Your task to perform on an android device: Clear the shopping cart on bestbuy.com. Add "razer nari" to the cart on bestbuy.com Image 0: 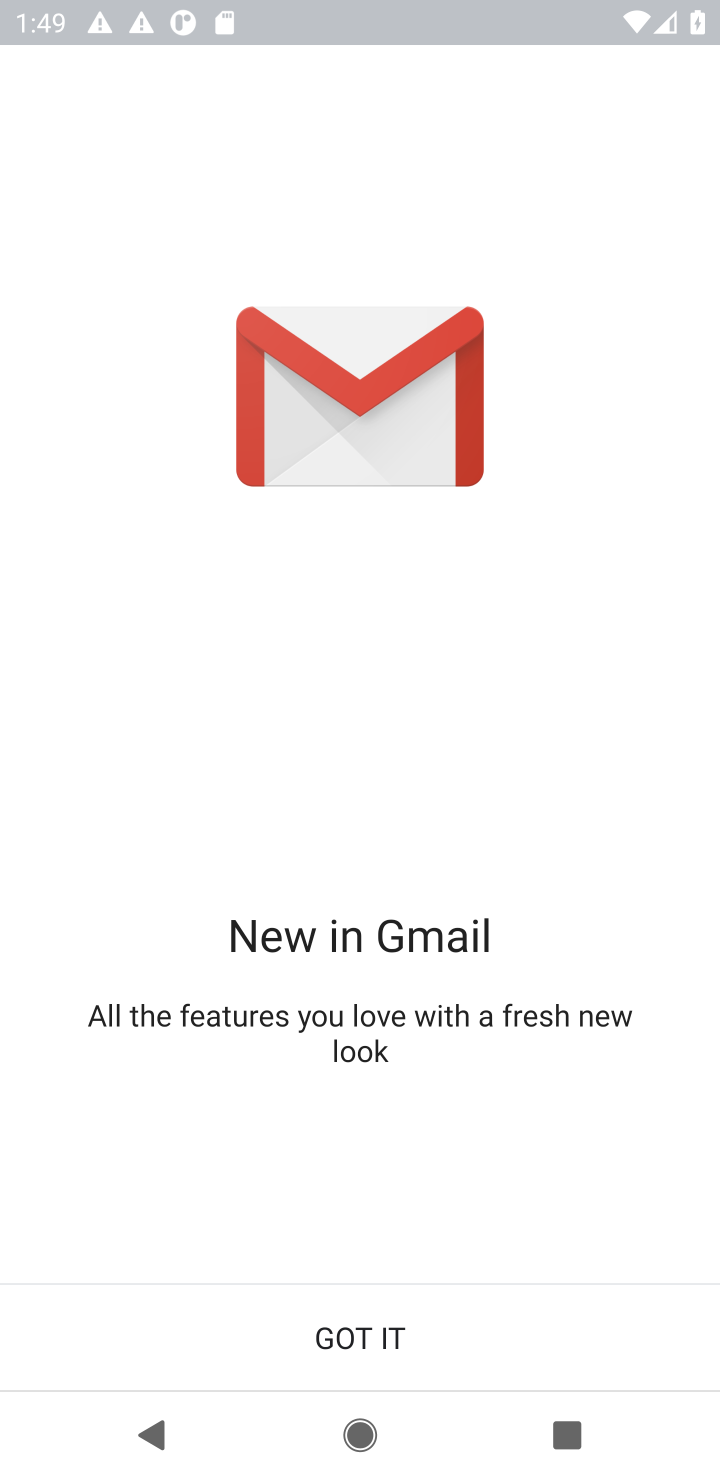
Step 0: press home button
Your task to perform on an android device: Clear the shopping cart on bestbuy.com. Add "razer nari" to the cart on bestbuy.com Image 1: 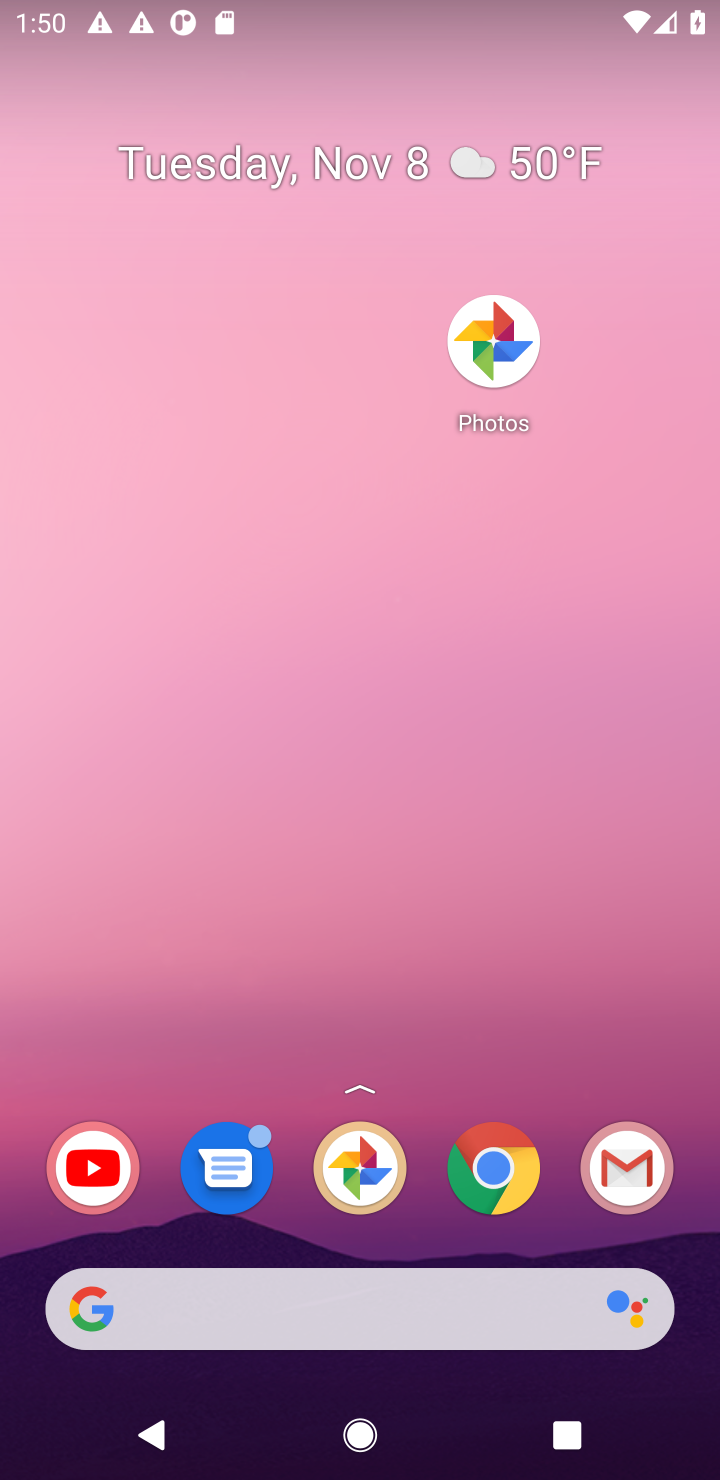
Step 1: drag from (310, 1122) to (487, 0)
Your task to perform on an android device: Clear the shopping cart on bestbuy.com. Add "razer nari" to the cart on bestbuy.com Image 2: 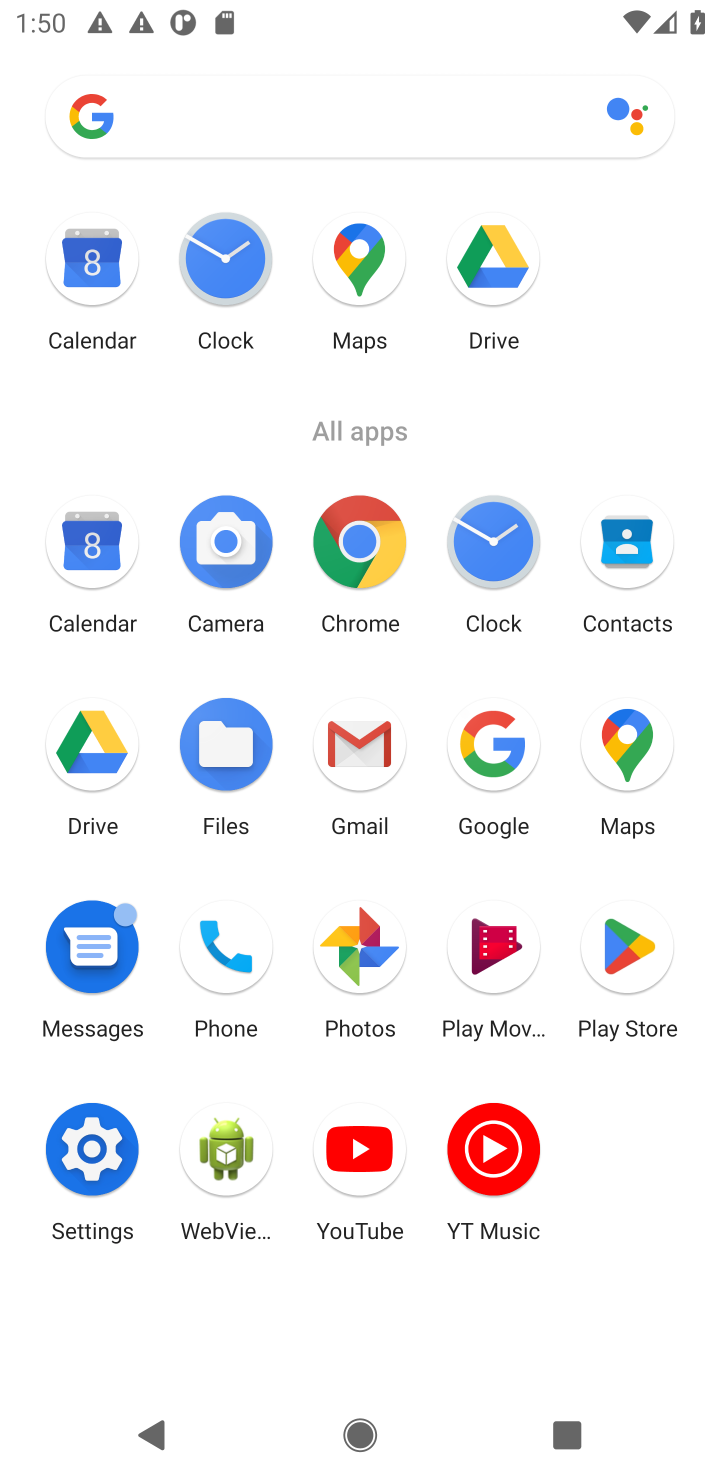
Step 2: click (361, 527)
Your task to perform on an android device: Clear the shopping cart on bestbuy.com. Add "razer nari" to the cart on bestbuy.com Image 3: 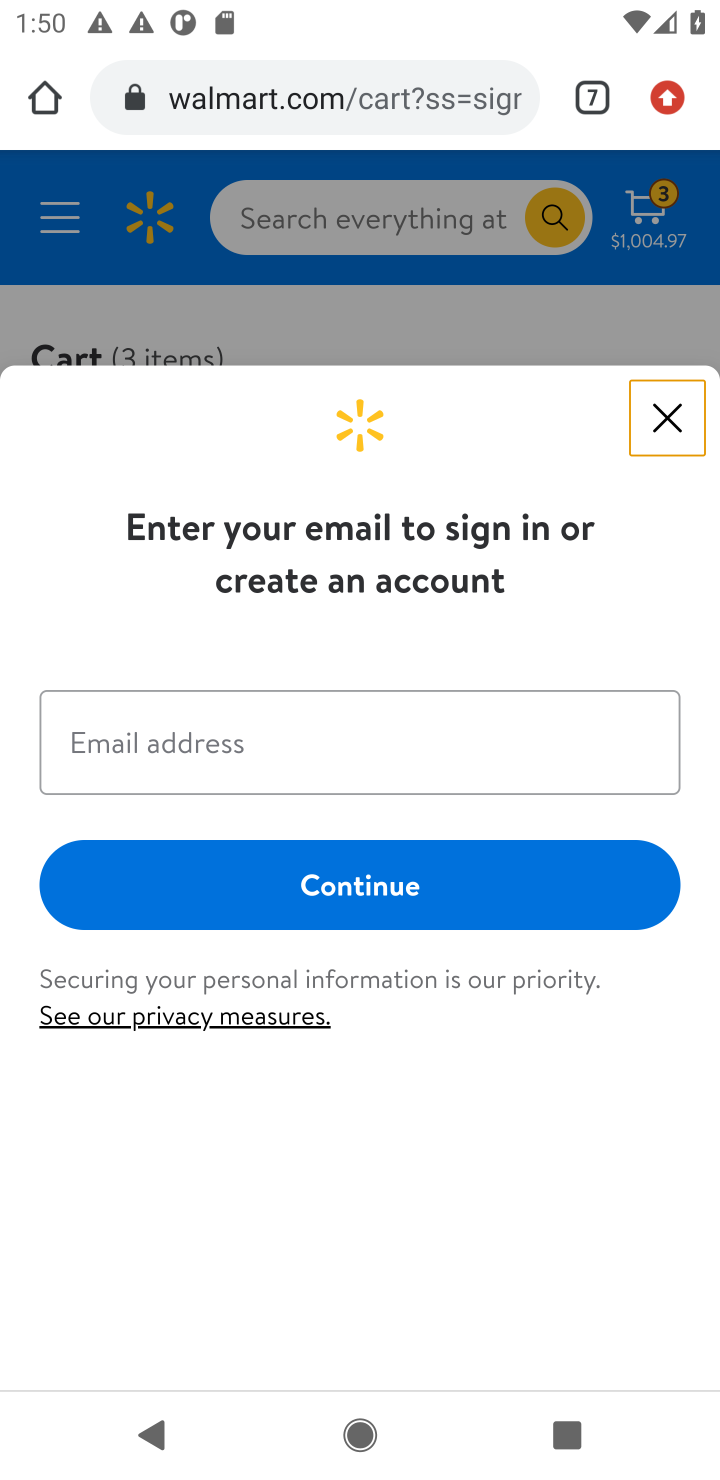
Step 3: click (371, 109)
Your task to perform on an android device: Clear the shopping cart on bestbuy.com. Add "razer nari" to the cart on bestbuy.com Image 4: 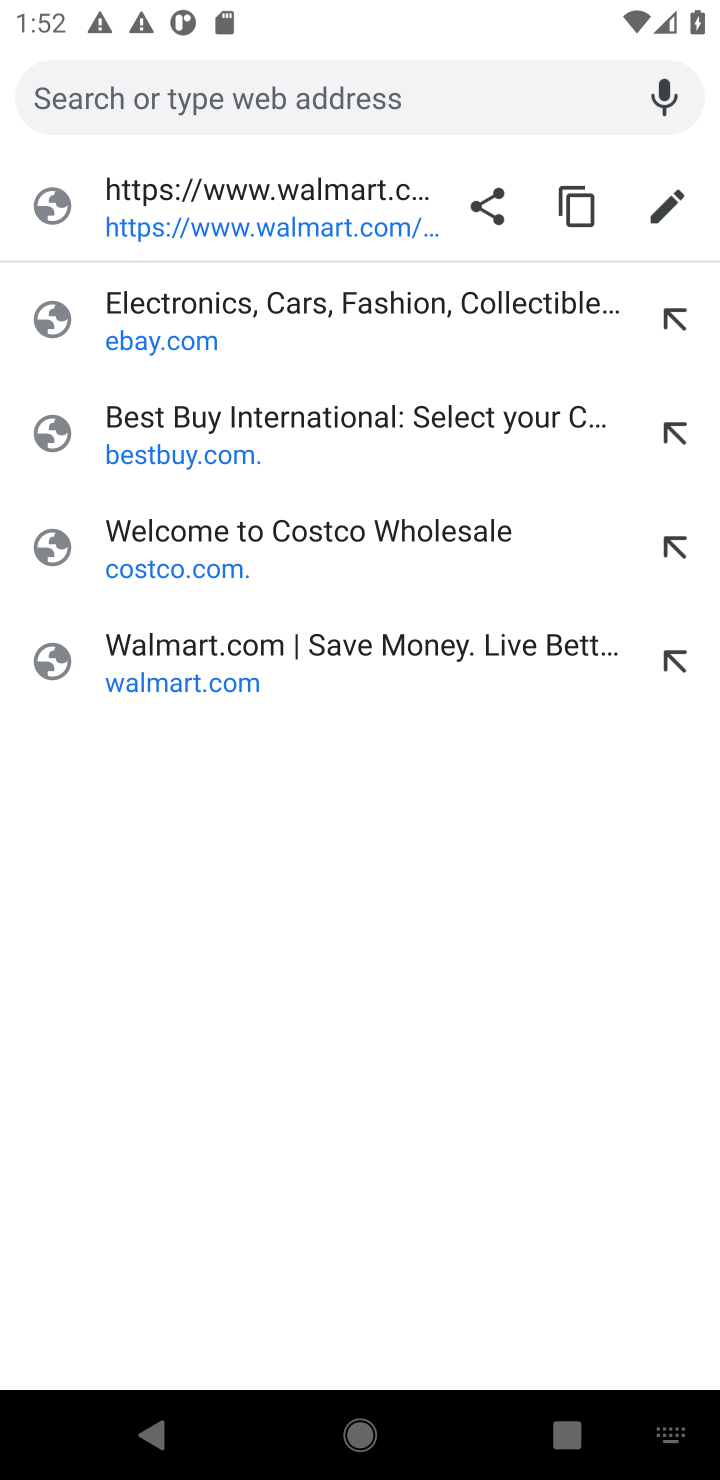
Step 4: press enter
Your task to perform on an android device: Clear the shopping cart on bestbuy.com. Add "razer nari" to the cart on bestbuy.com Image 5: 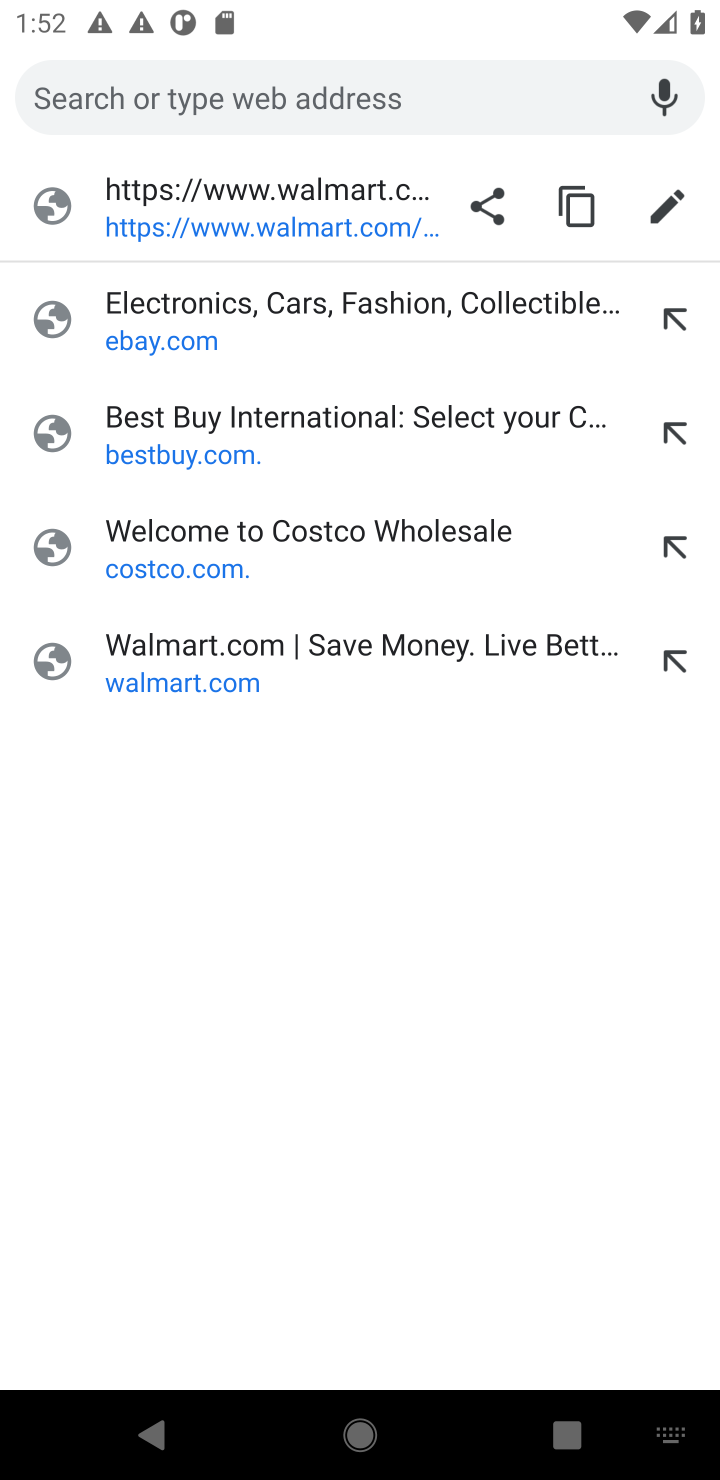
Step 5: type "bestbuy"
Your task to perform on an android device: Clear the shopping cart on bestbuy.com. Add "razer nari" to the cart on bestbuy.com Image 6: 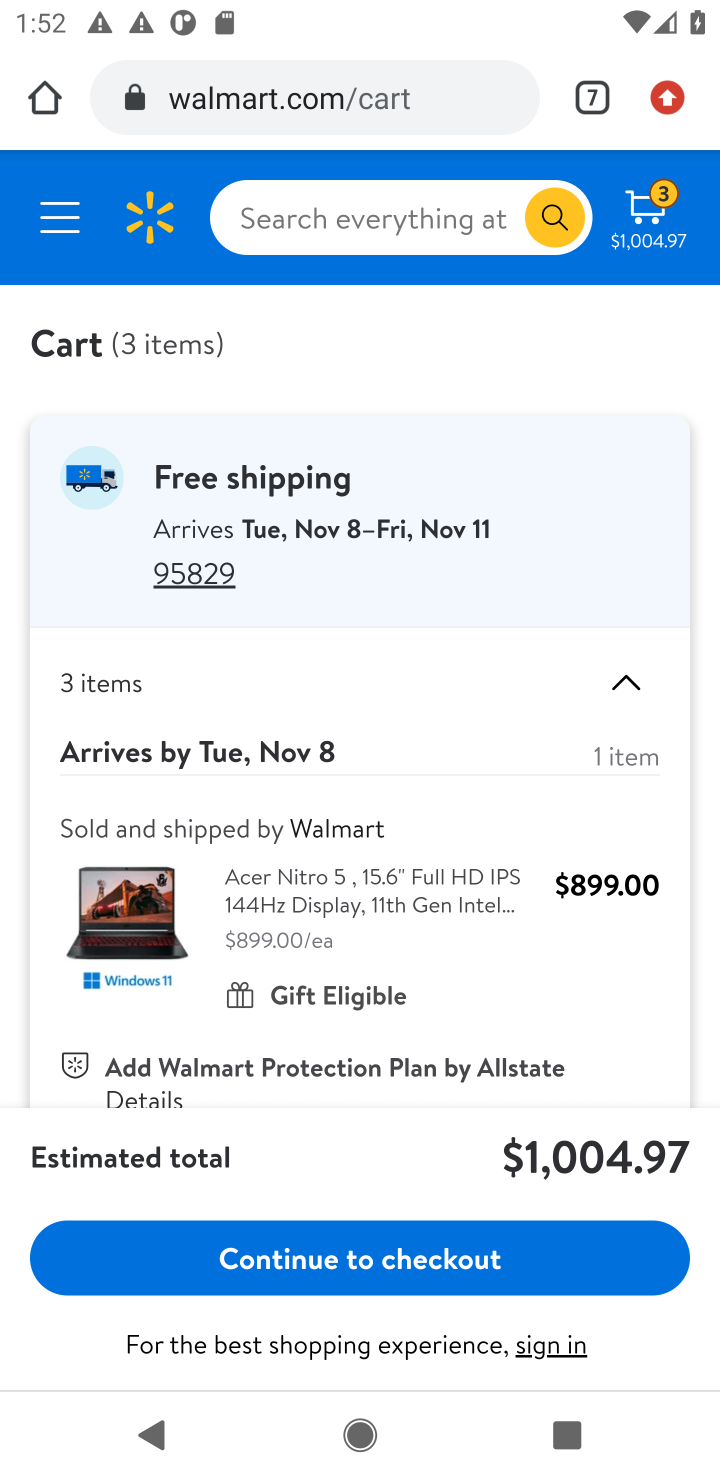
Step 6: click (391, 236)
Your task to perform on an android device: Clear the shopping cart on bestbuy.com. Add "razer nari" to the cart on bestbuy.com Image 7: 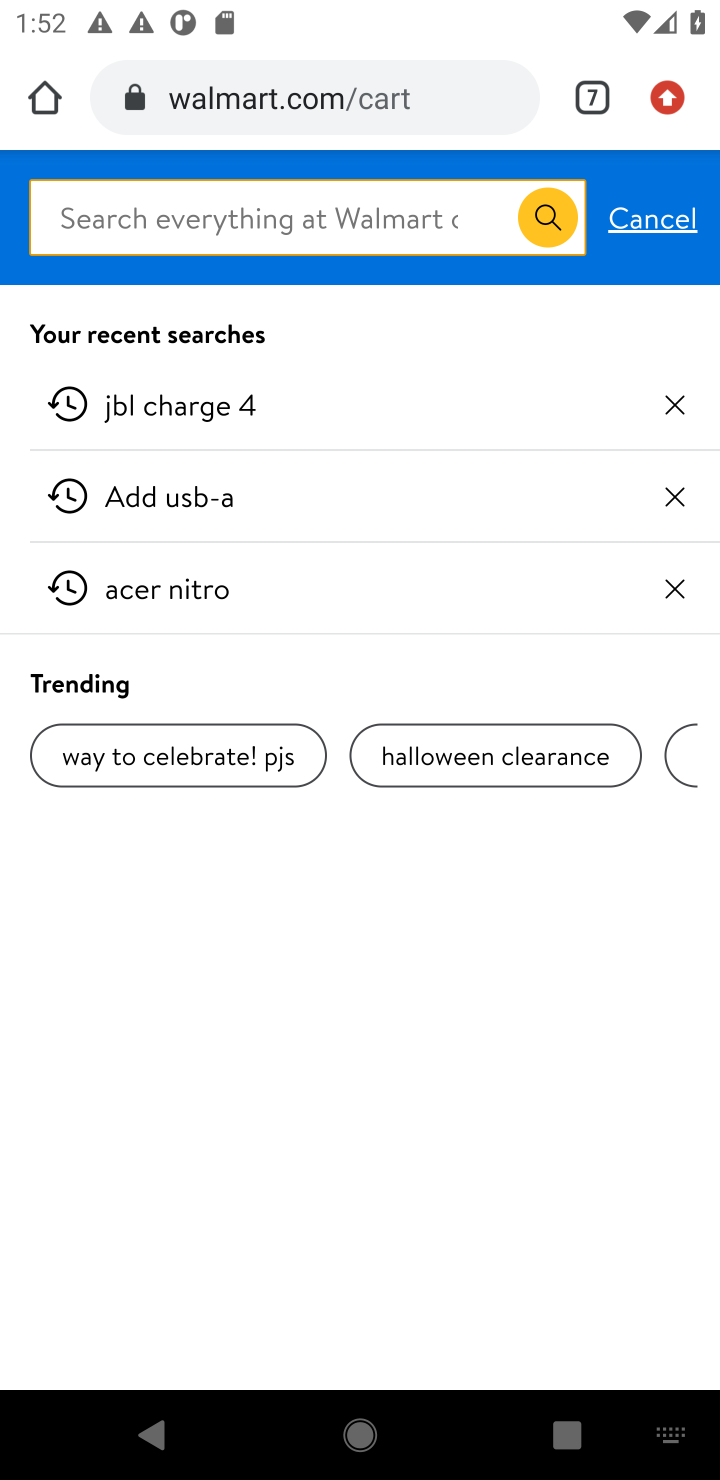
Step 7: drag from (541, 1472) to (632, 1041)
Your task to perform on an android device: Clear the shopping cart on bestbuy.com. Add "razer nari" to the cart on bestbuy.com Image 8: 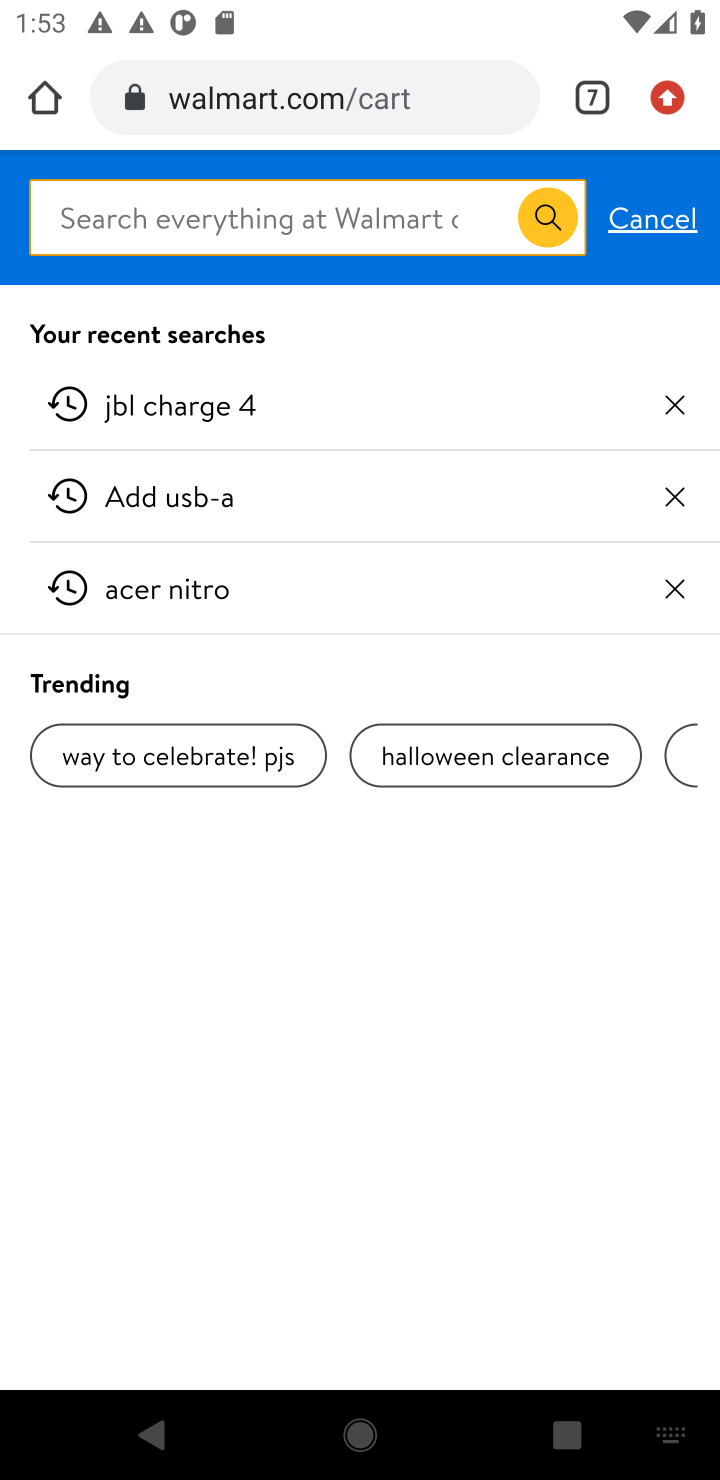
Step 8: type "azer nar"
Your task to perform on an android device: Clear the shopping cart on bestbuy.com. Add "razer nari" to the cart on bestbuy.com Image 9: 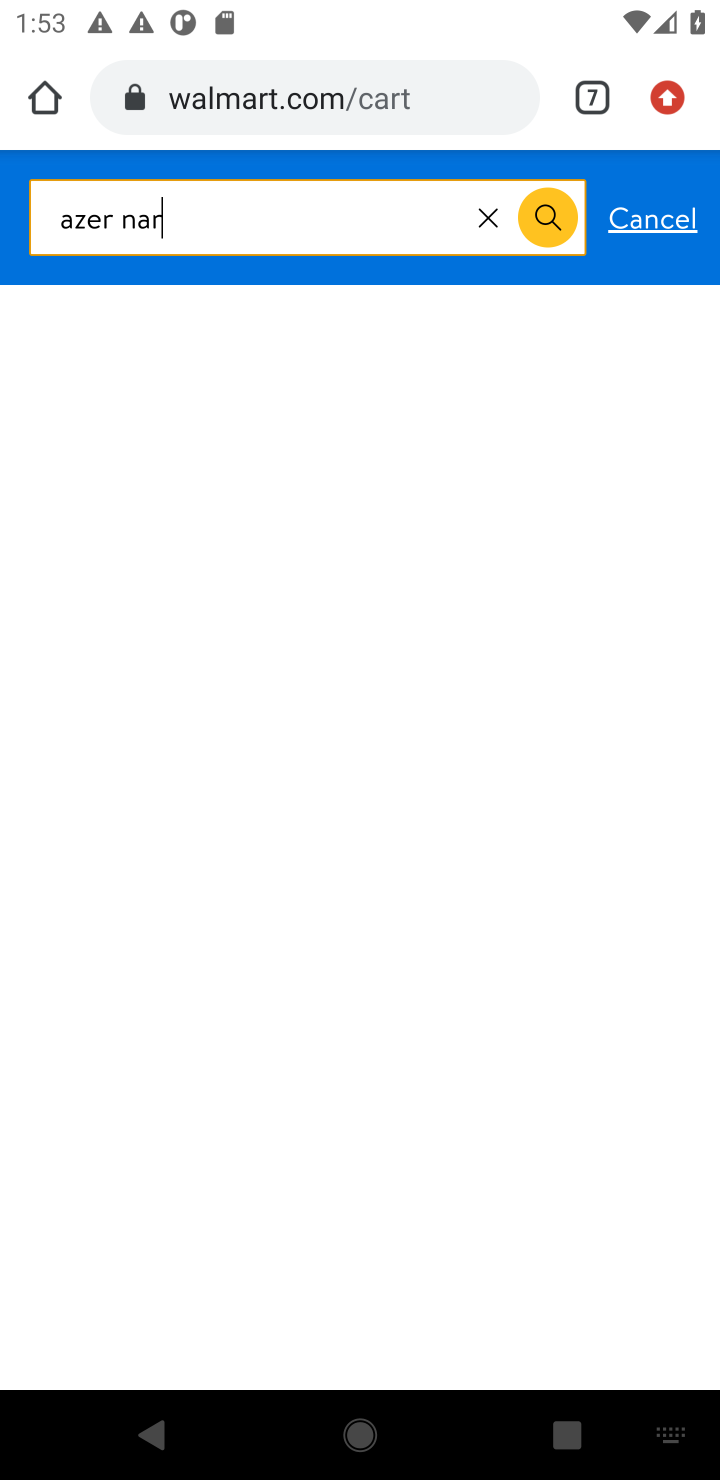
Step 9: press enter
Your task to perform on an android device: Clear the shopping cart on bestbuy.com. Add "razer nari" to the cart on bestbuy.com Image 10: 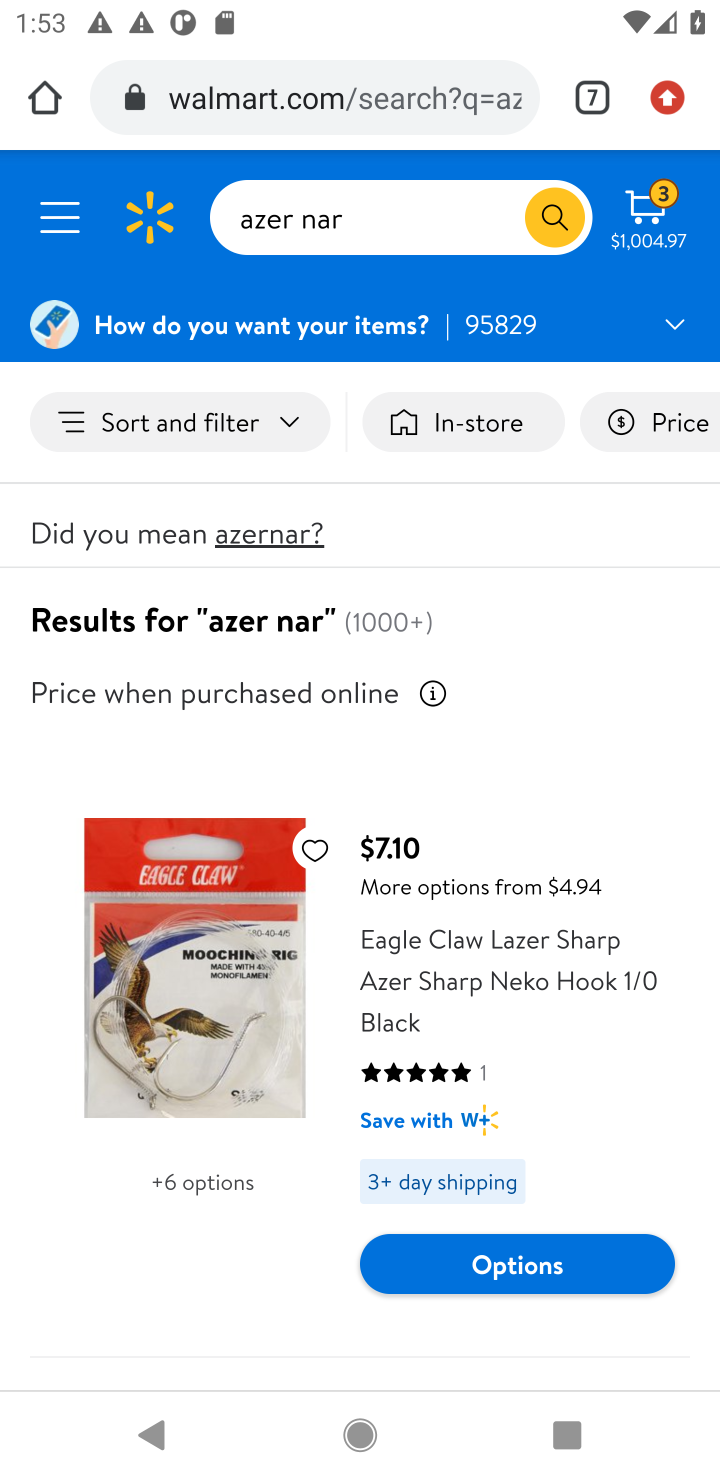
Step 10: click (543, 1261)
Your task to perform on an android device: Clear the shopping cart on bestbuy.com. Add "razer nari" to the cart on bestbuy.com Image 11: 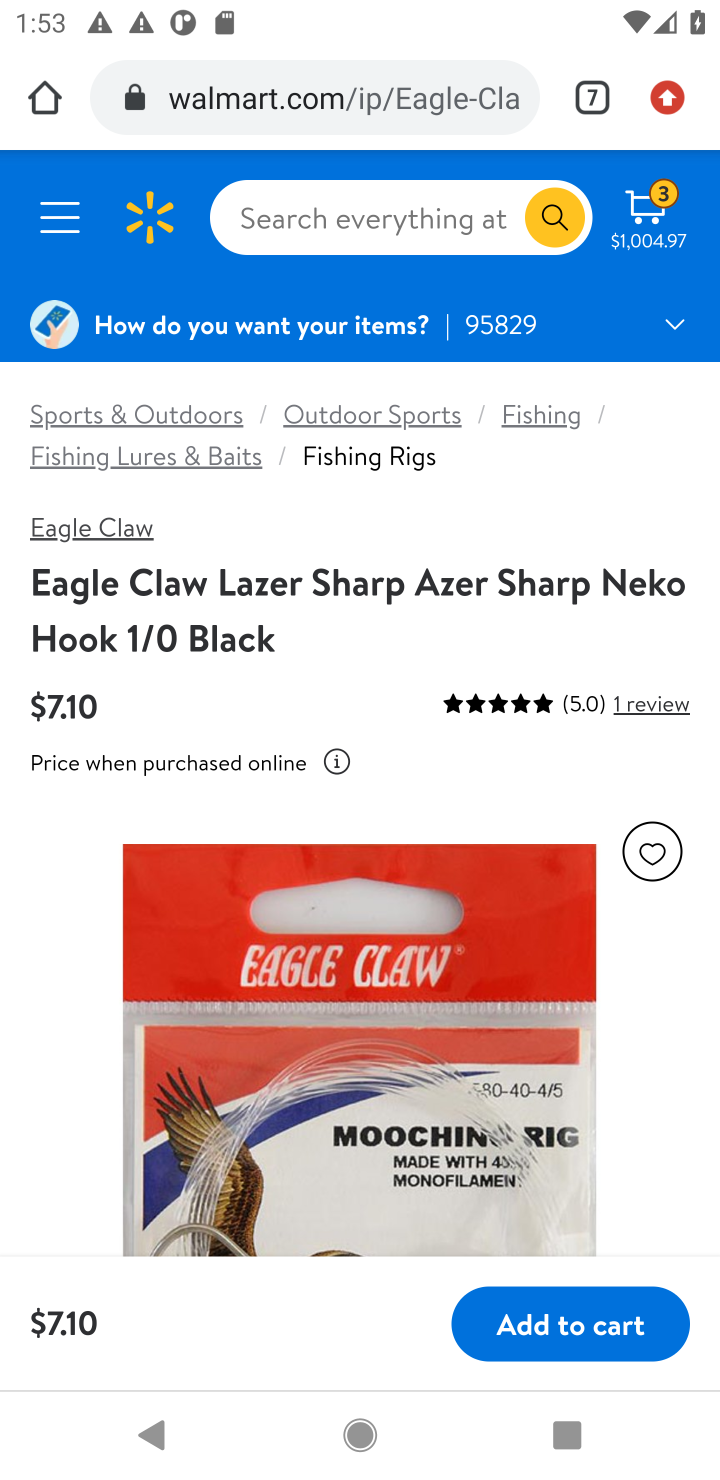
Step 11: click (581, 1324)
Your task to perform on an android device: Clear the shopping cart on bestbuy.com. Add "razer nari" to the cart on bestbuy.com Image 12: 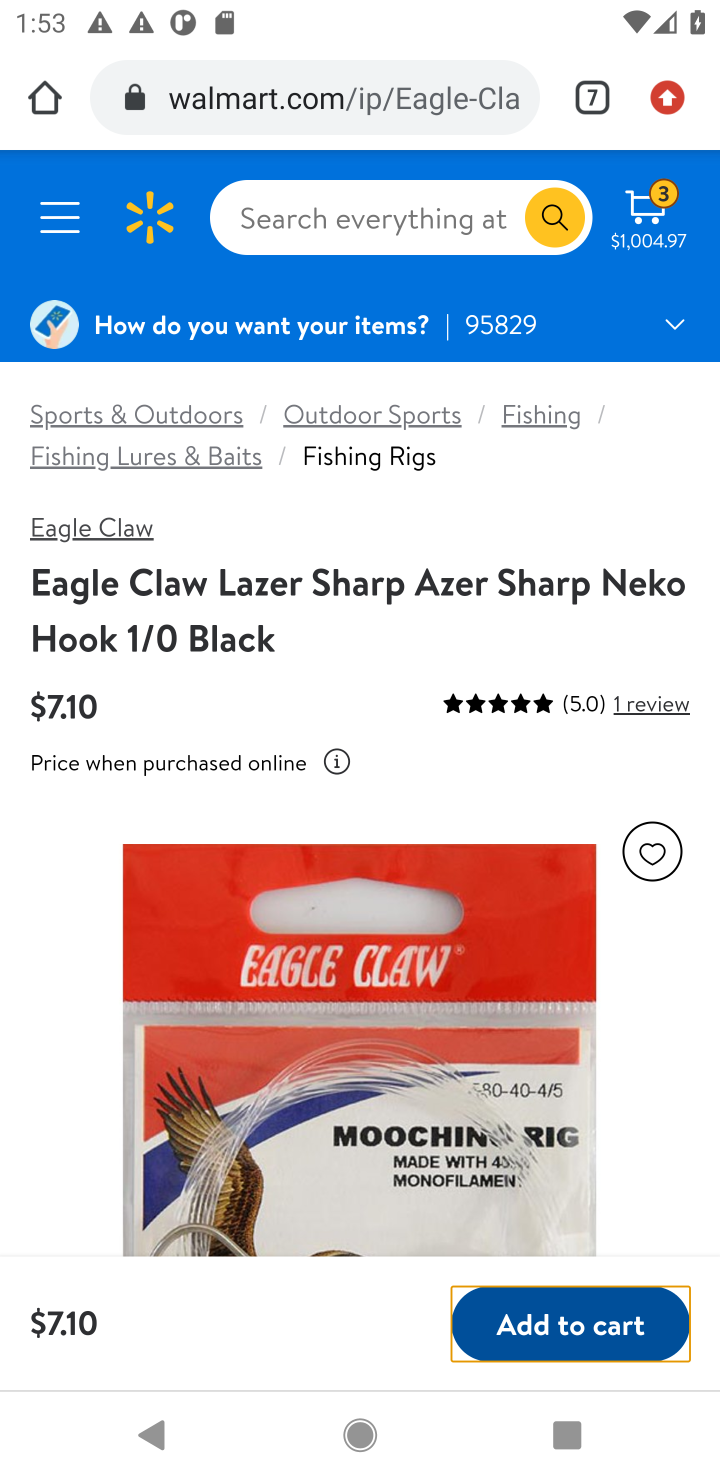
Step 12: click (601, 1329)
Your task to perform on an android device: Clear the shopping cart on bestbuy.com. Add "razer nari" to the cart on bestbuy.com Image 13: 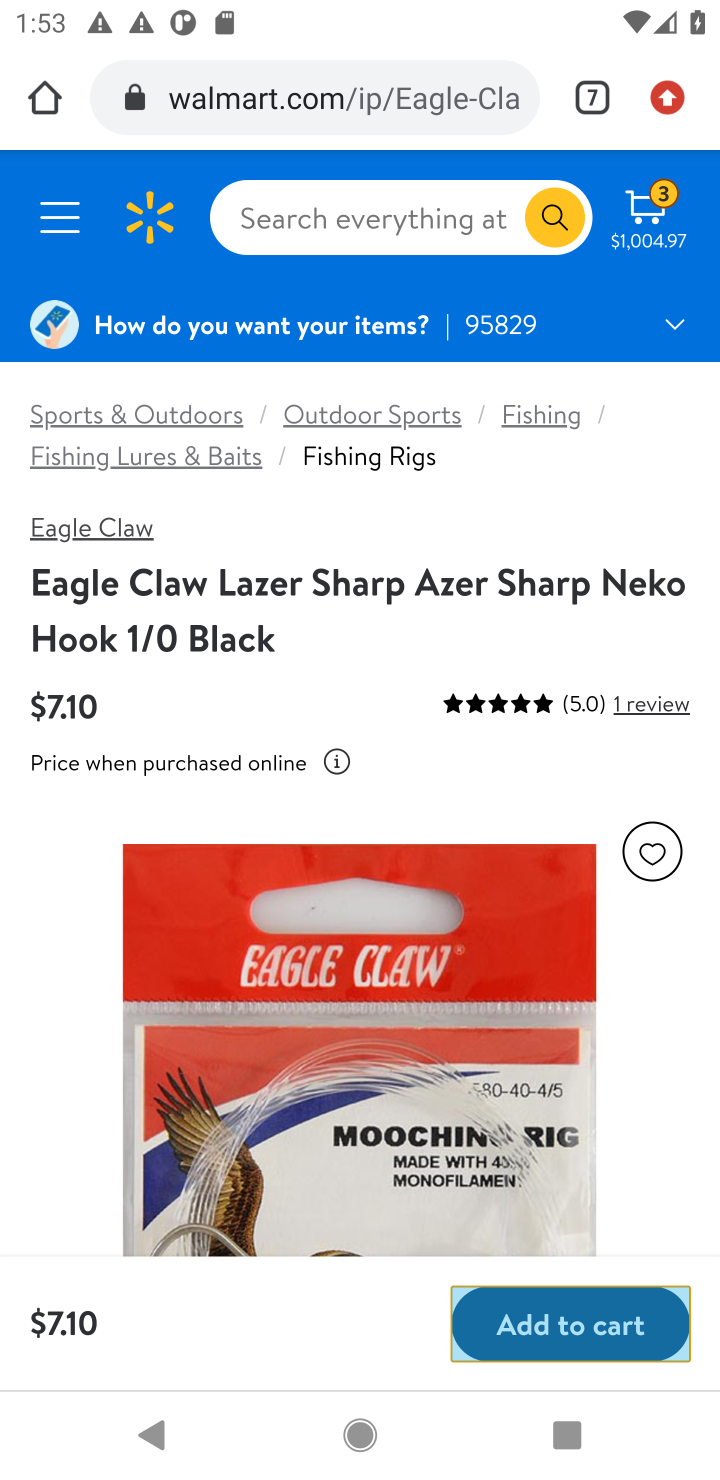
Step 13: click (599, 1319)
Your task to perform on an android device: Clear the shopping cart on bestbuy.com. Add "razer nari" to the cart on bestbuy.com Image 14: 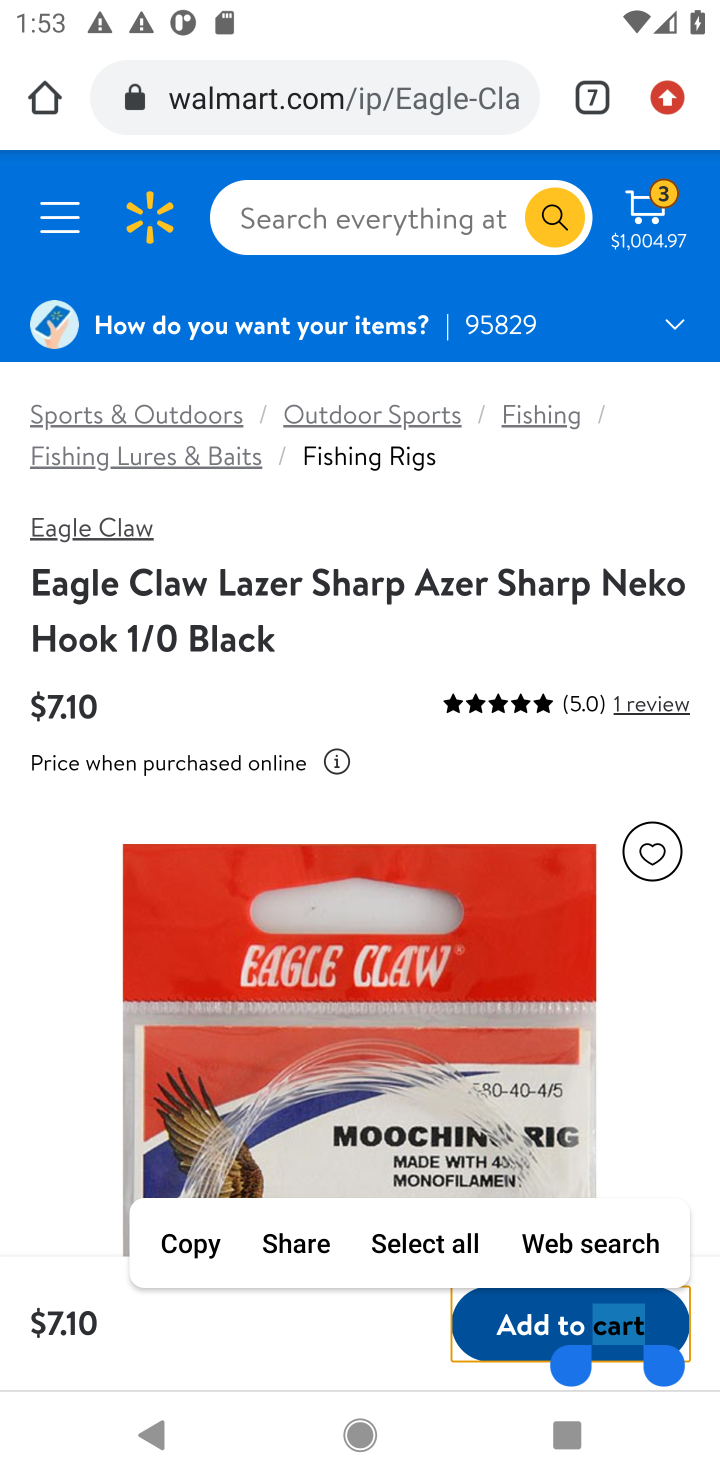
Step 14: click (508, 1330)
Your task to perform on an android device: Clear the shopping cart on bestbuy.com. Add "razer nari" to the cart on bestbuy.com Image 15: 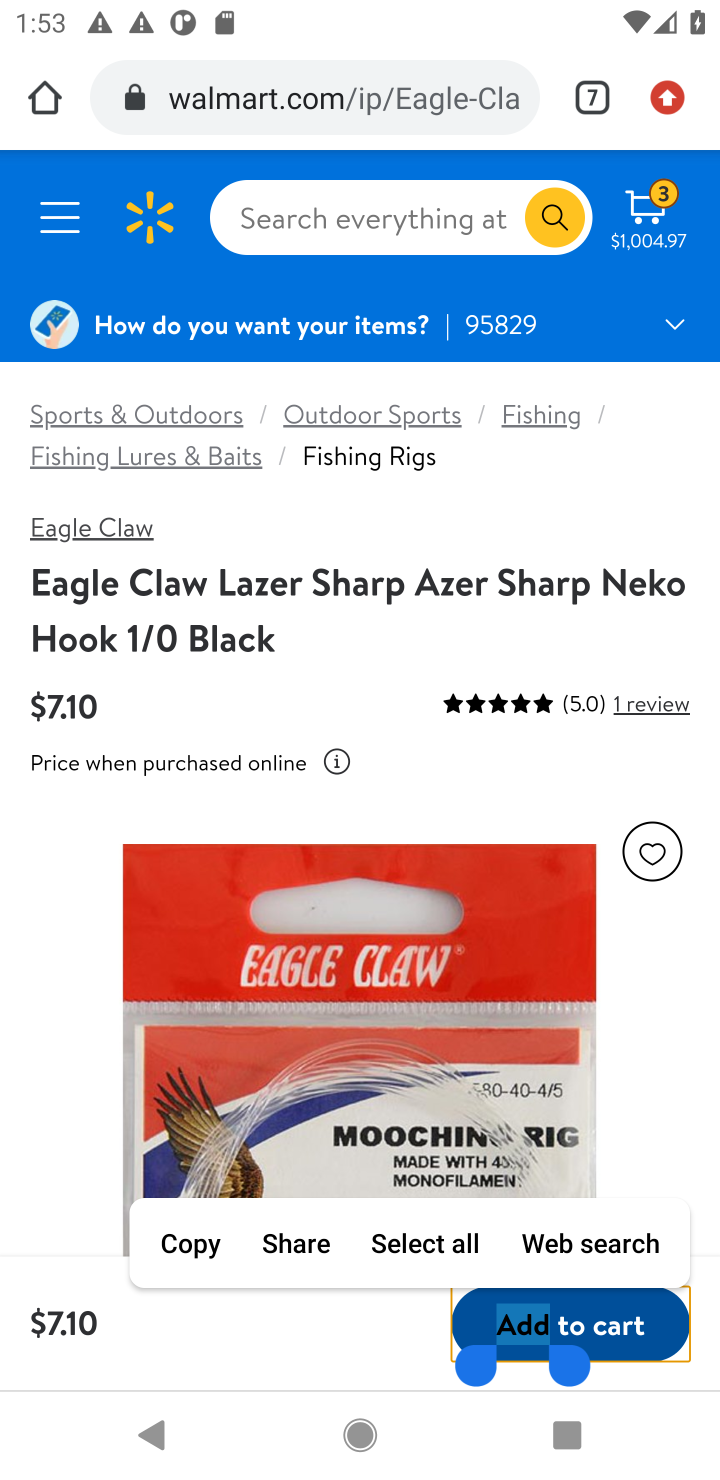
Step 15: click (413, 1354)
Your task to perform on an android device: Clear the shopping cart on bestbuy.com. Add "razer nari" to the cart on bestbuy.com Image 16: 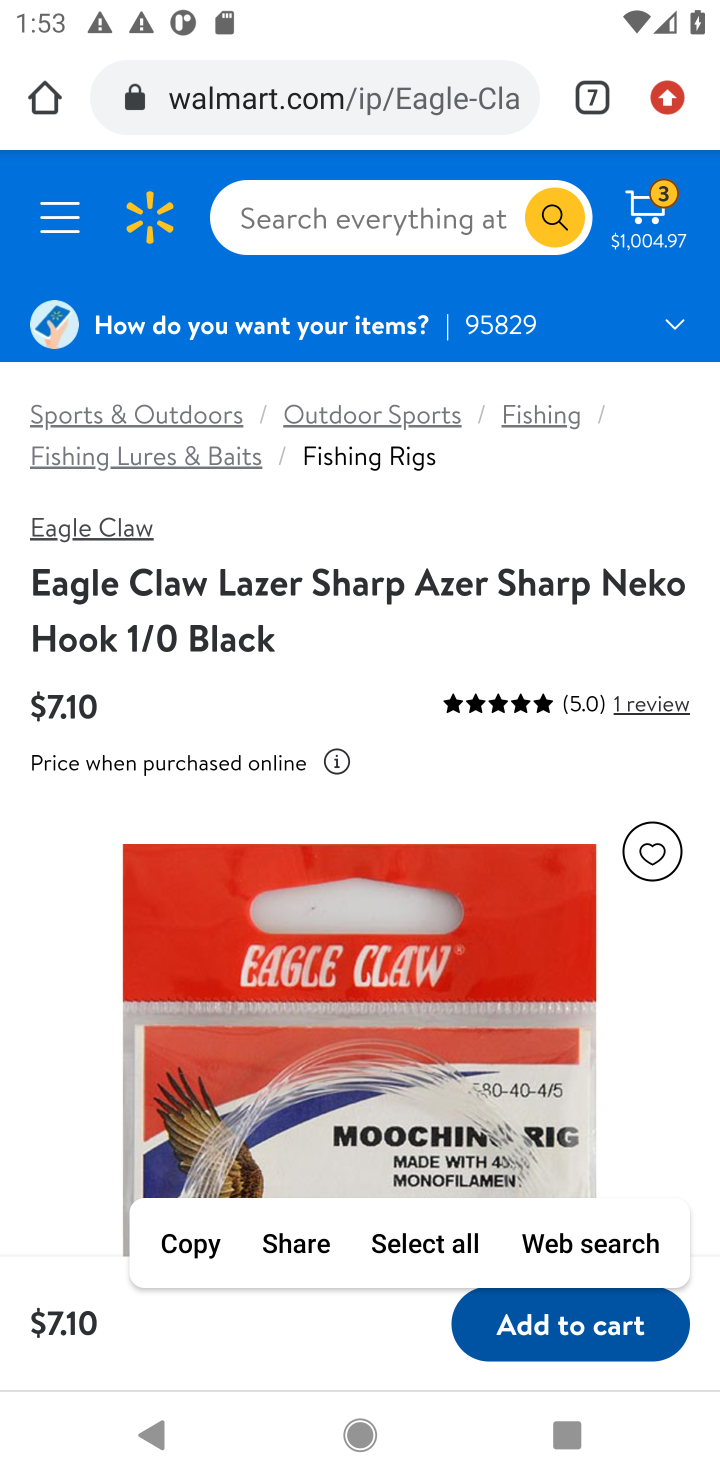
Step 16: click (413, 1352)
Your task to perform on an android device: Clear the shopping cart on bestbuy.com. Add "razer nari" to the cart on bestbuy.com Image 17: 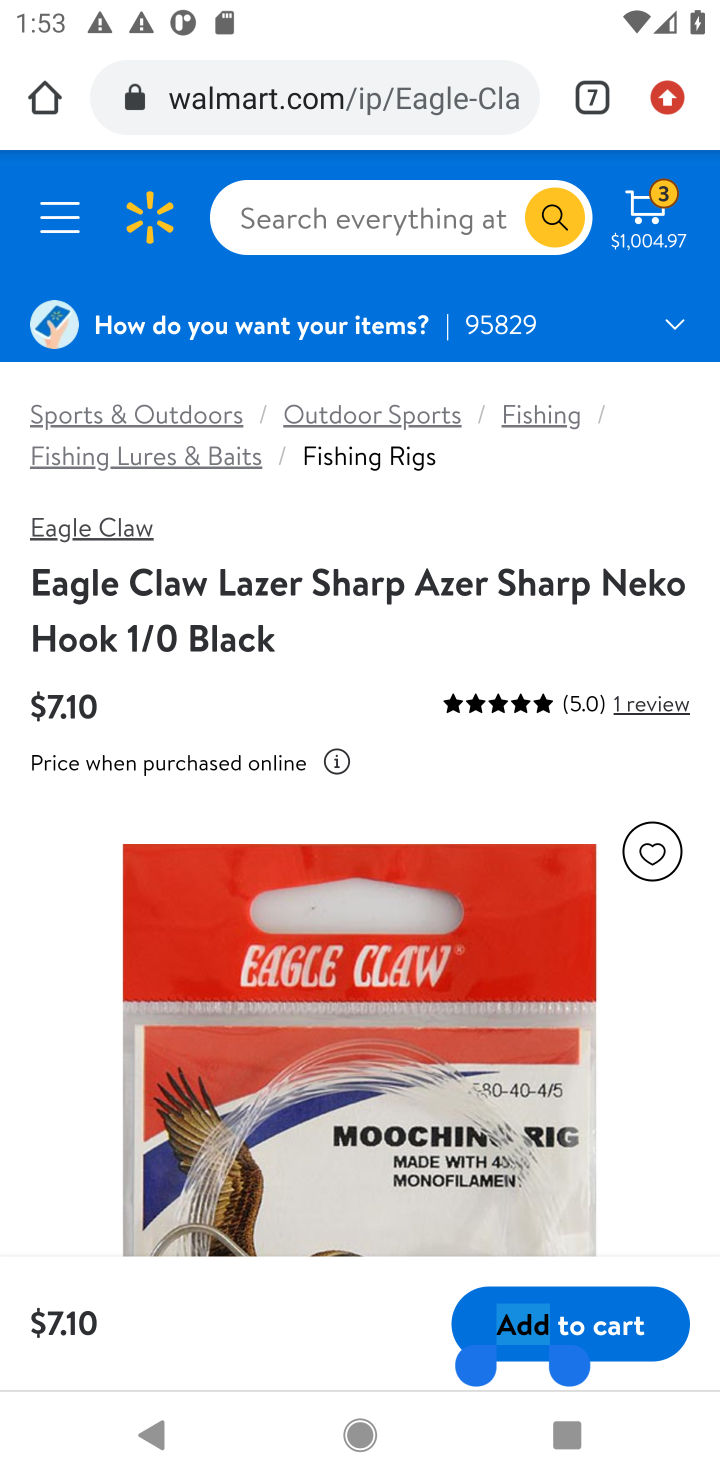
Step 17: click (402, 1323)
Your task to perform on an android device: Clear the shopping cart on bestbuy.com. Add "razer nari" to the cart on bestbuy.com Image 18: 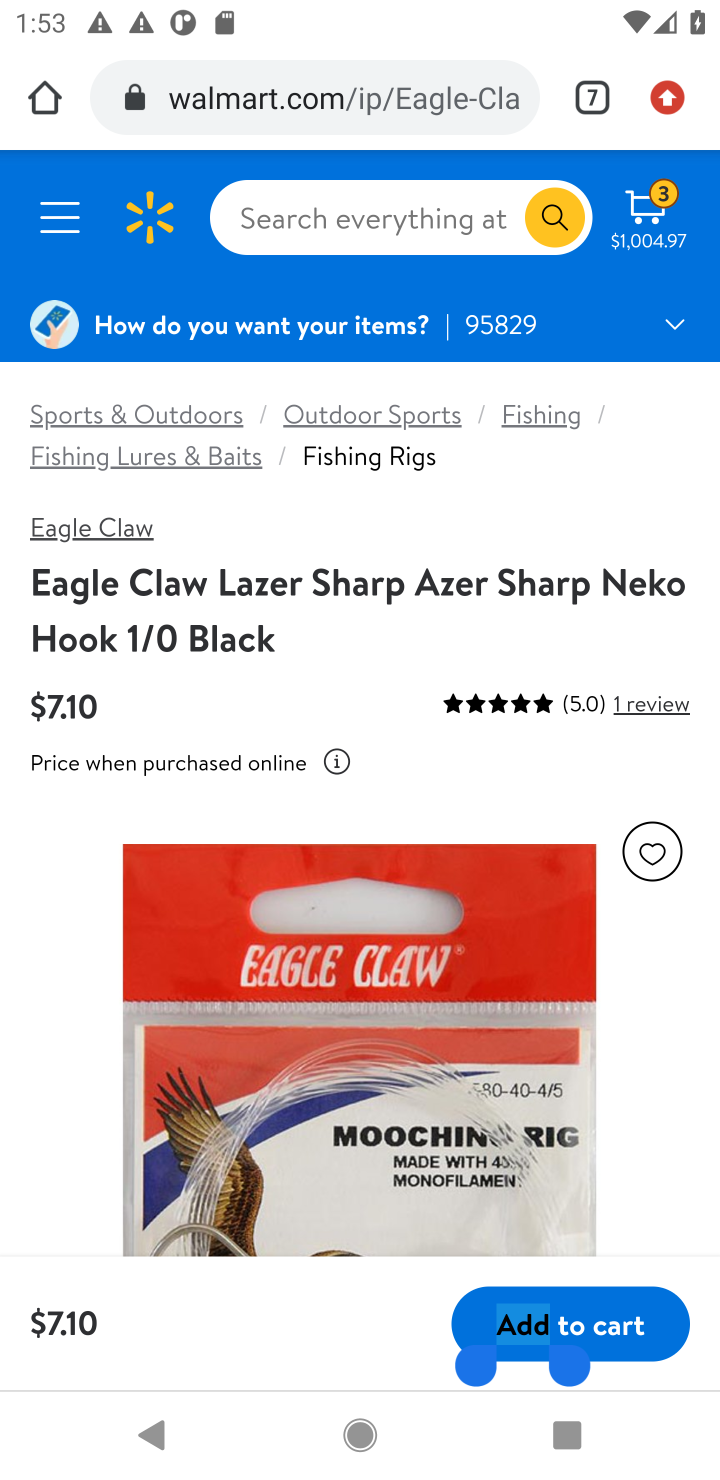
Step 18: click (402, 1323)
Your task to perform on an android device: Clear the shopping cart on bestbuy.com. Add "razer nari" to the cart on bestbuy.com Image 19: 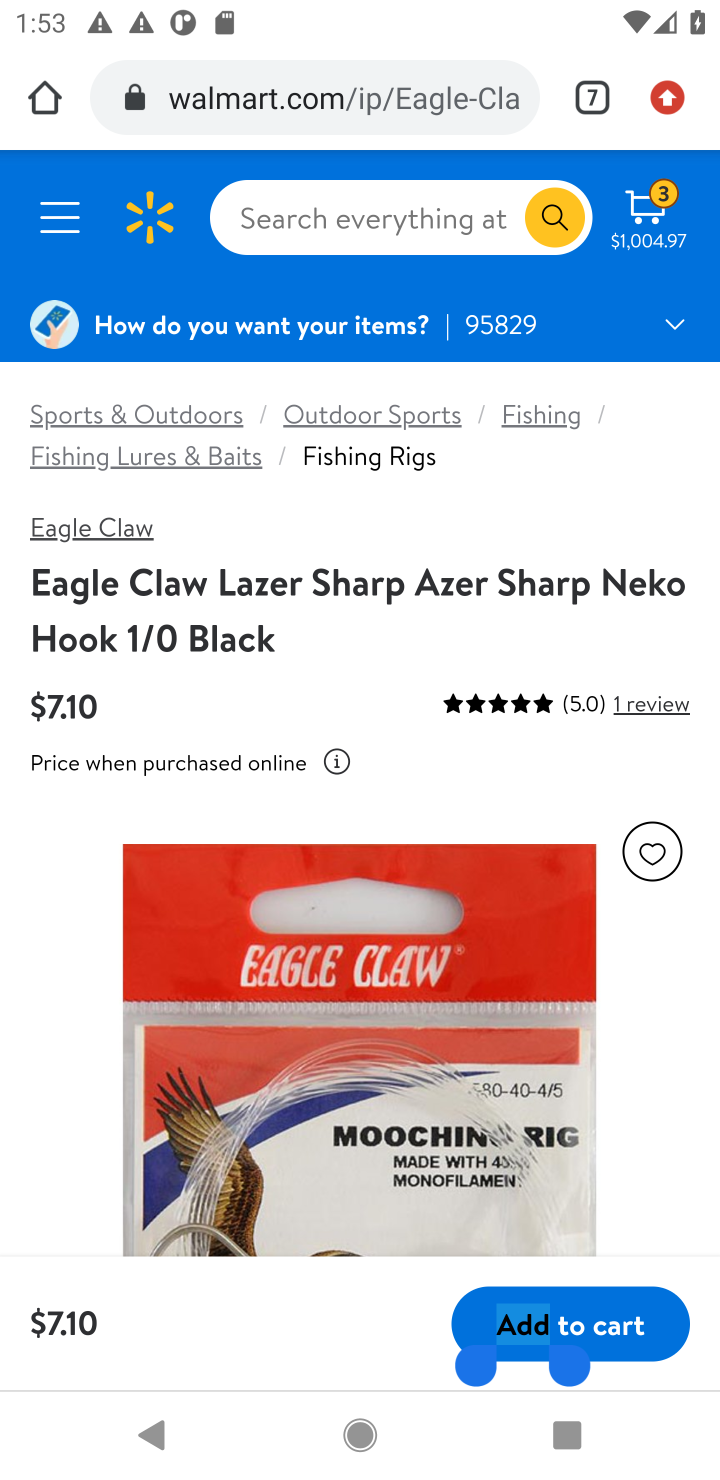
Step 19: click (401, 1318)
Your task to perform on an android device: Clear the shopping cart on bestbuy.com. Add "razer nari" to the cart on bestbuy.com Image 20: 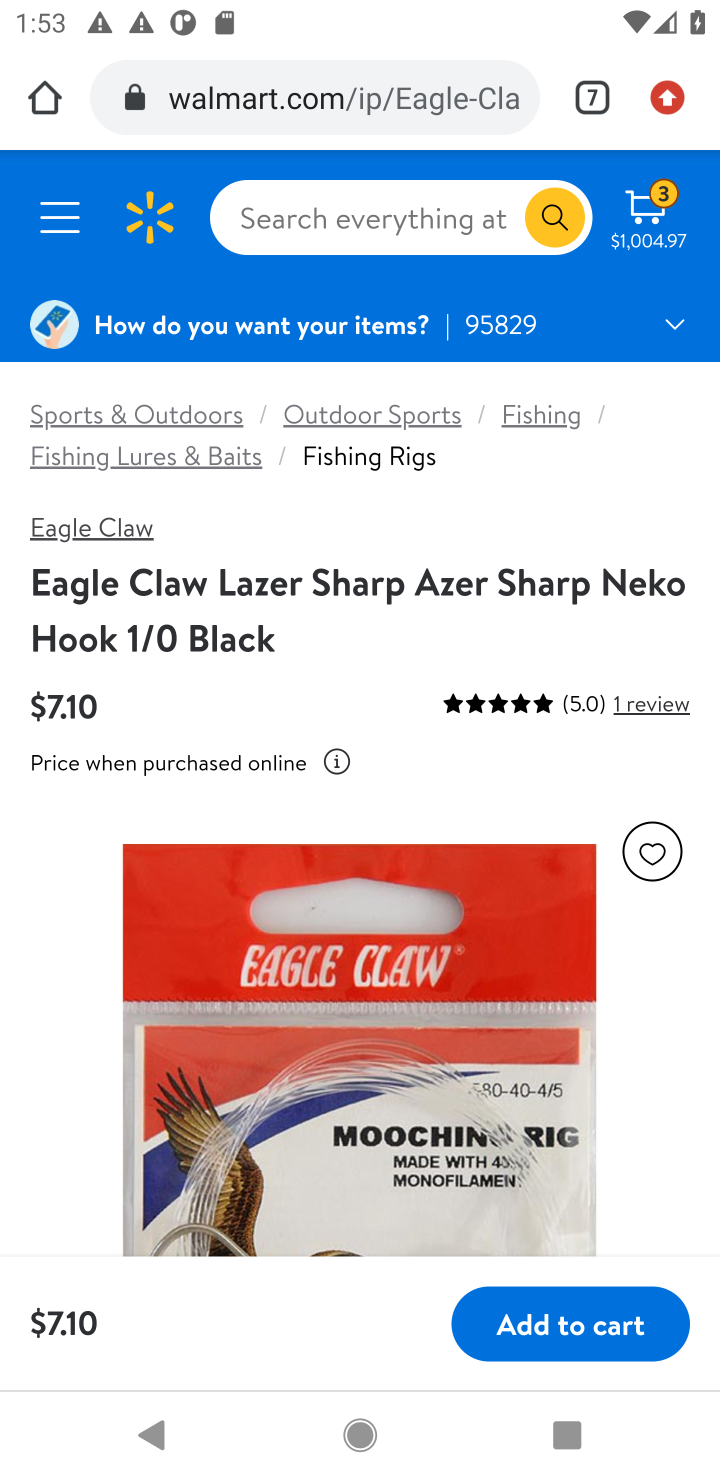
Step 20: click (543, 1315)
Your task to perform on an android device: Clear the shopping cart on bestbuy.com. Add "razer nari" to the cart on bestbuy.com Image 21: 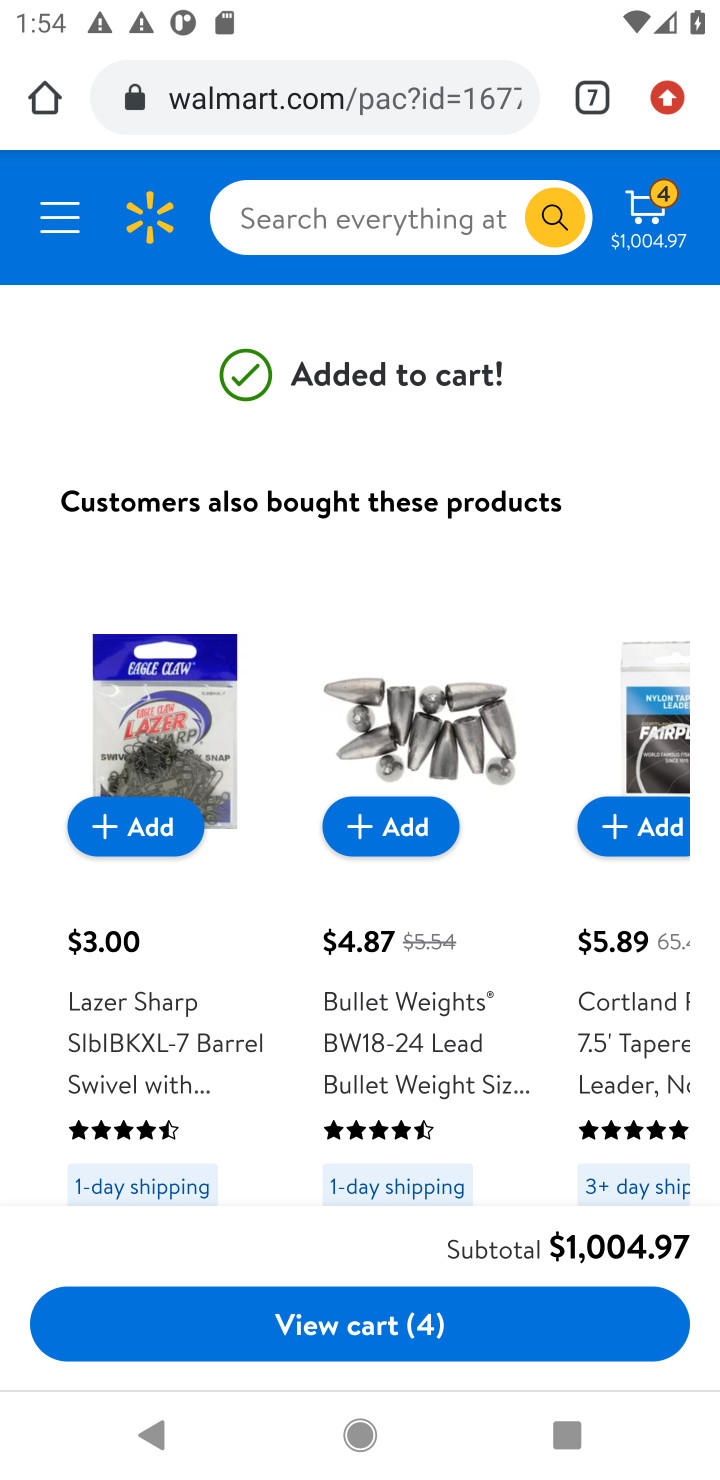
Step 21: task complete